Your task to perform on an android device: Go to Google Image 0: 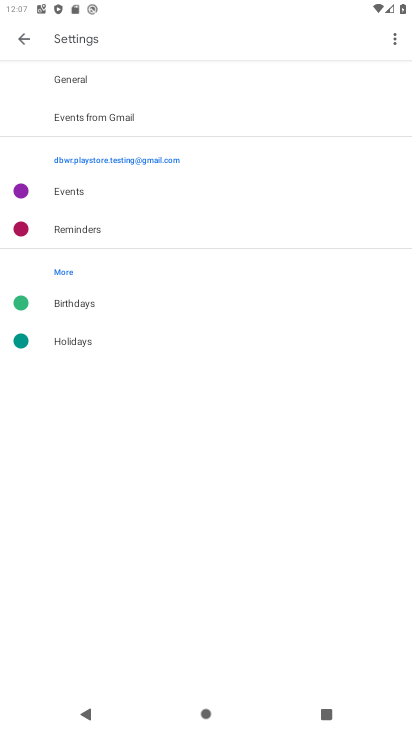
Step 0: press home button
Your task to perform on an android device: Go to Google Image 1: 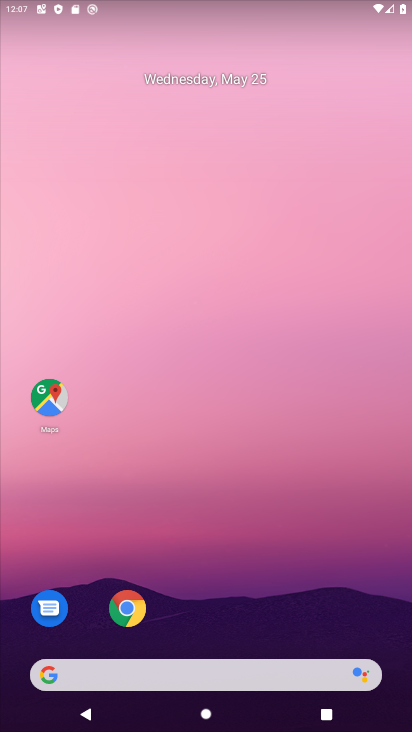
Step 1: drag from (256, 606) to (280, 63)
Your task to perform on an android device: Go to Google Image 2: 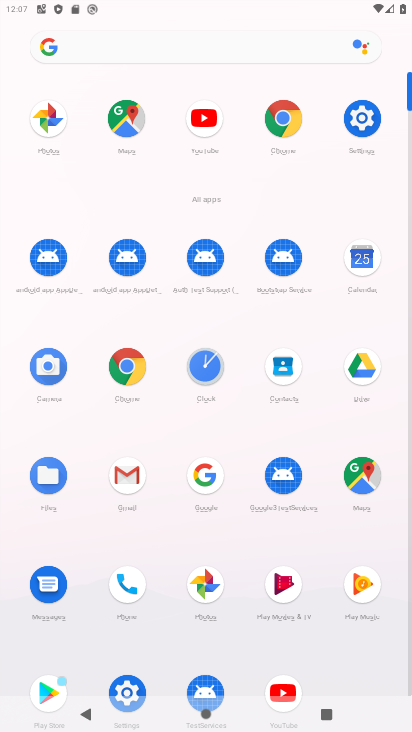
Step 2: click (209, 471)
Your task to perform on an android device: Go to Google Image 3: 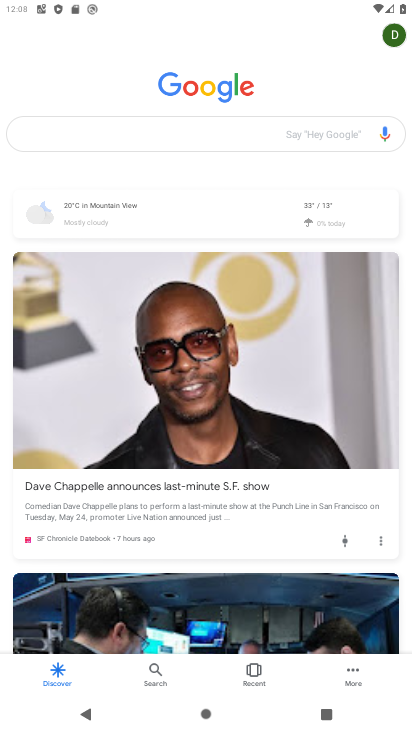
Step 3: task complete